Your task to perform on an android device: turn on javascript in the chrome app Image 0: 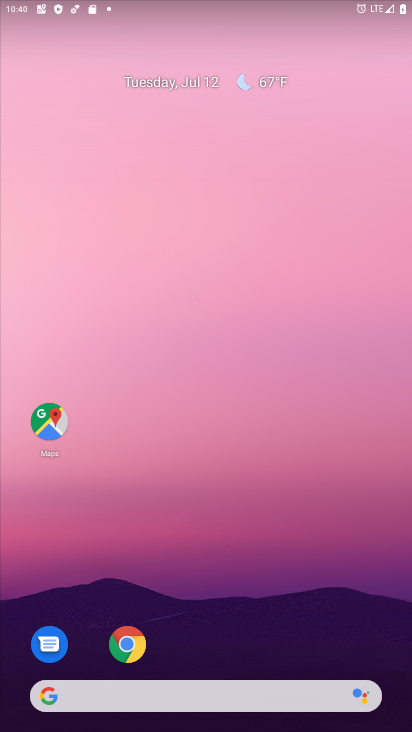
Step 0: drag from (197, 587) to (238, 105)
Your task to perform on an android device: turn on javascript in the chrome app Image 1: 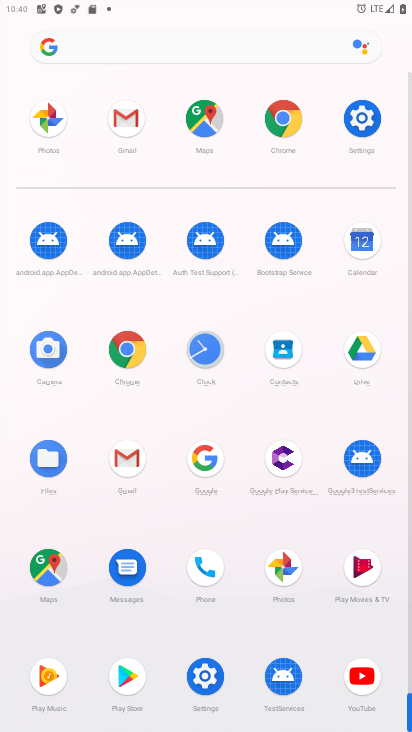
Step 1: click (128, 309)
Your task to perform on an android device: turn on javascript in the chrome app Image 2: 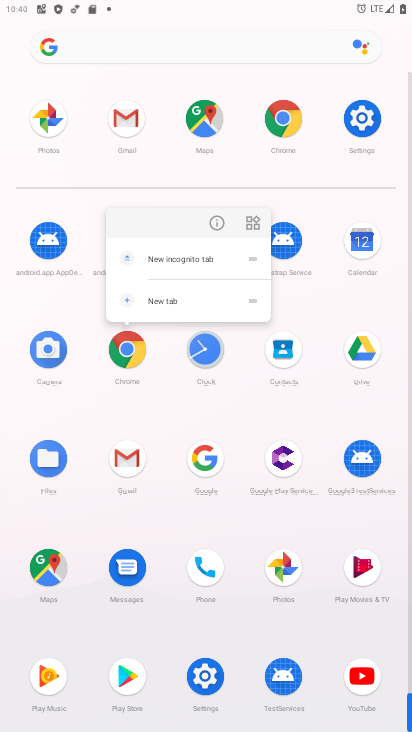
Step 2: click (141, 328)
Your task to perform on an android device: turn on javascript in the chrome app Image 3: 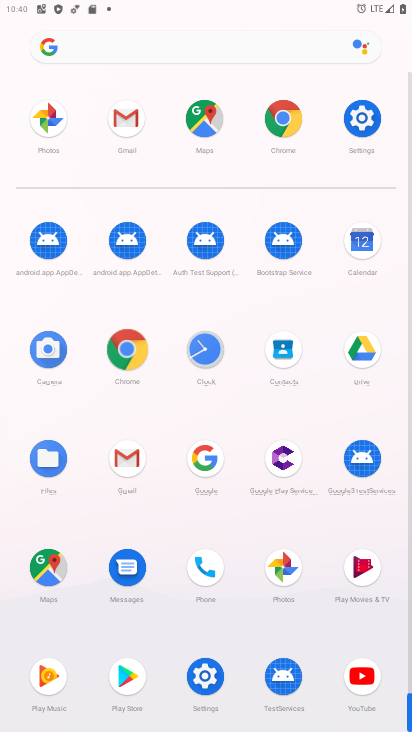
Step 3: click (139, 328)
Your task to perform on an android device: turn on javascript in the chrome app Image 4: 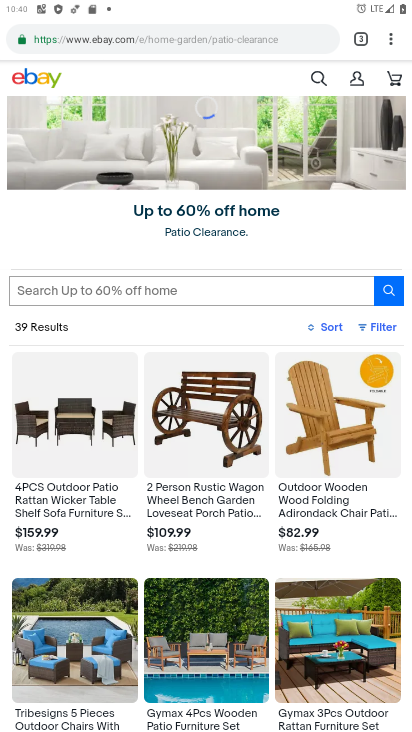
Step 4: click (153, 287)
Your task to perform on an android device: turn on javascript in the chrome app Image 5: 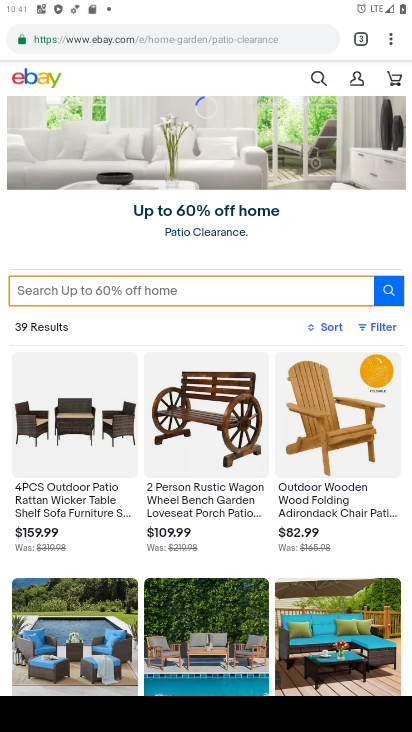
Step 5: click (385, 38)
Your task to perform on an android device: turn on javascript in the chrome app Image 6: 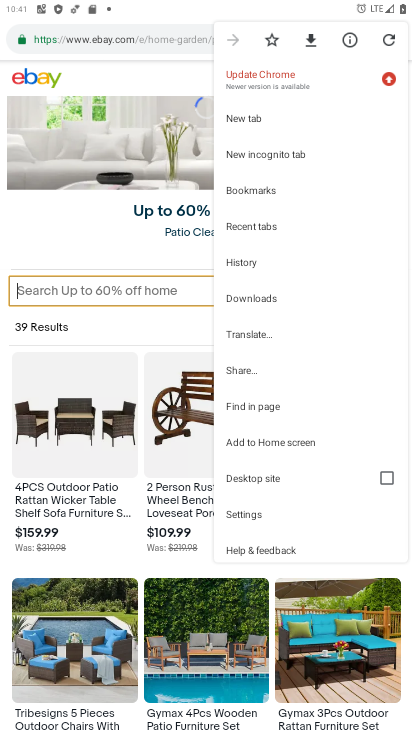
Step 6: click (245, 508)
Your task to perform on an android device: turn on javascript in the chrome app Image 7: 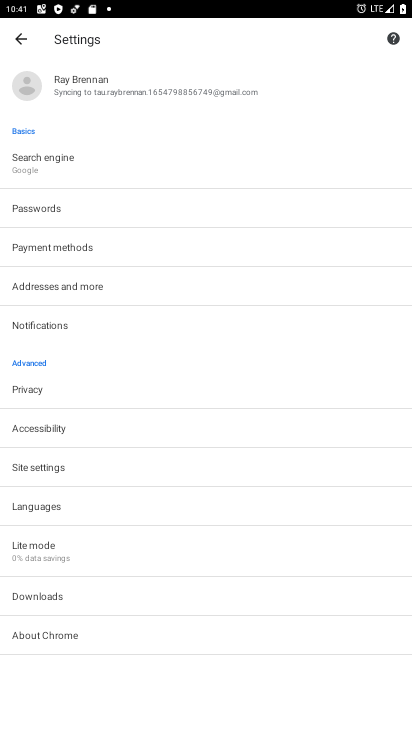
Step 7: click (55, 463)
Your task to perform on an android device: turn on javascript in the chrome app Image 8: 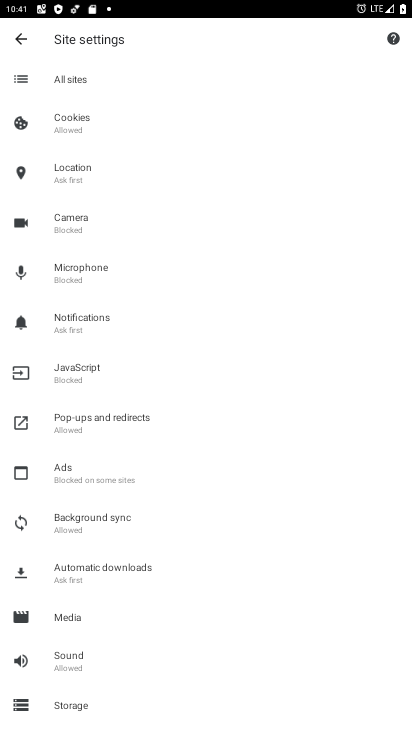
Step 8: click (116, 420)
Your task to perform on an android device: turn on javascript in the chrome app Image 9: 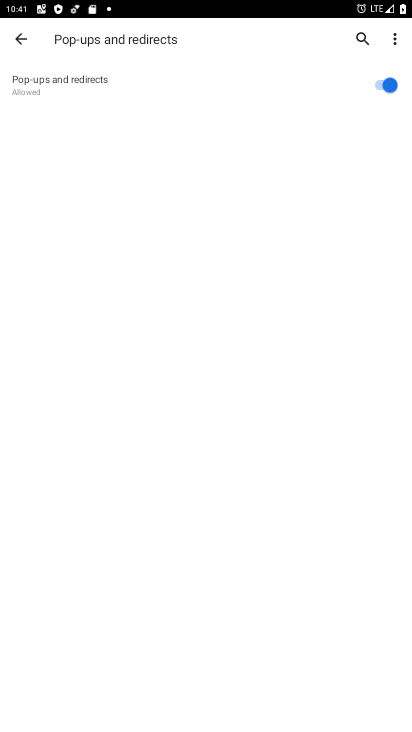
Step 9: click (29, 46)
Your task to perform on an android device: turn on javascript in the chrome app Image 10: 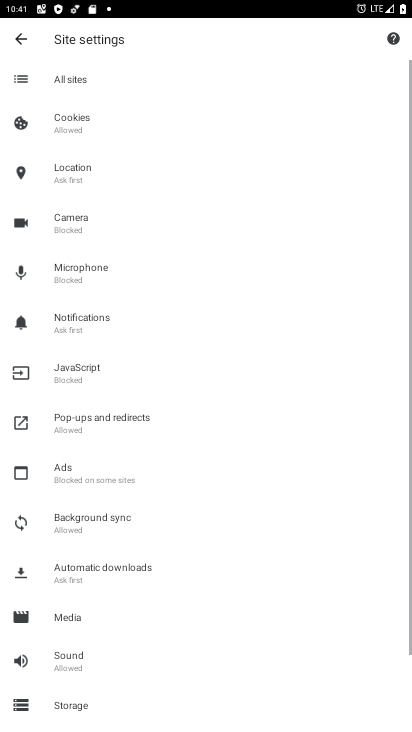
Step 10: click (76, 351)
Your task to perform on an android device: turn on javascript in the chrome app Image 11: 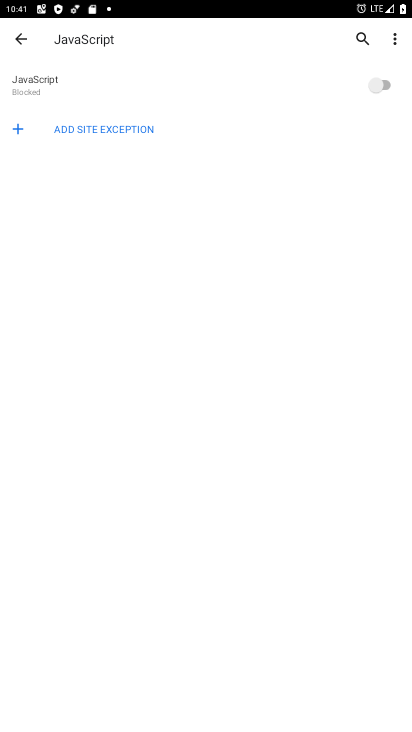
Step 11: drag from (180, 600) to (250, 202)
Your task to perform on an android device: turn on javascript in the chrome app Image 12: 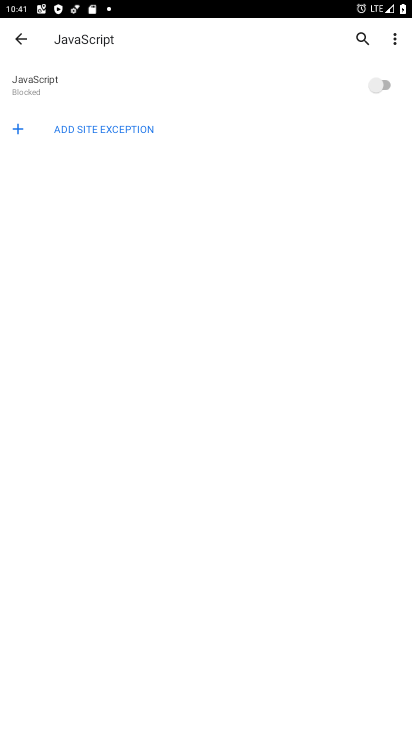
Step 12: click (360, 78)
Your task to perform on an android device: turn on javascript in the chrome app Image 13: 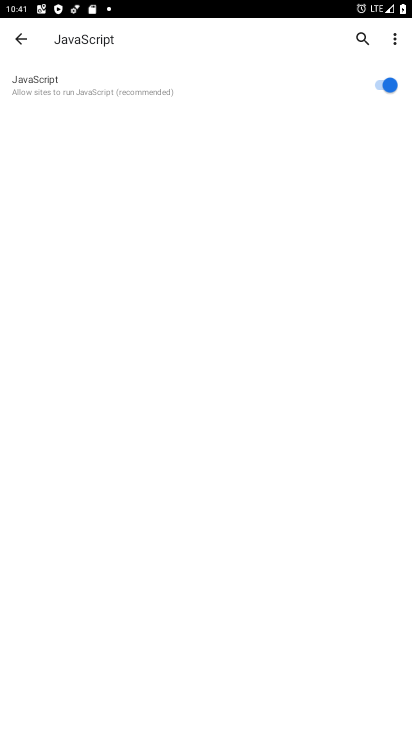
Step 13: task complete